Your task to perform on an android device: Open Amazon Image 0: 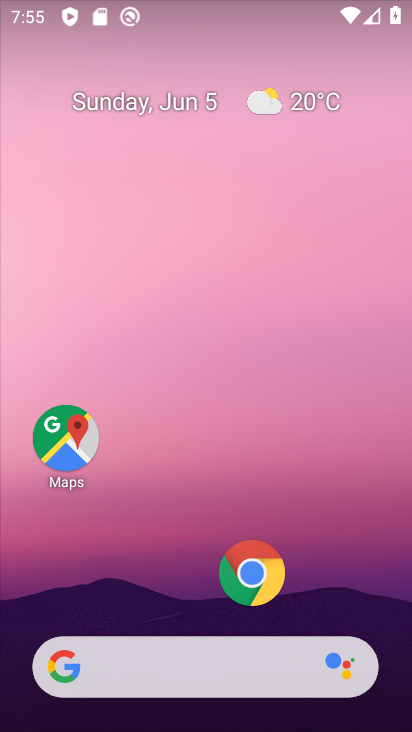
Step 0: click (263, 582)
Your task to perform on an android device: Open Amazon Image 1: 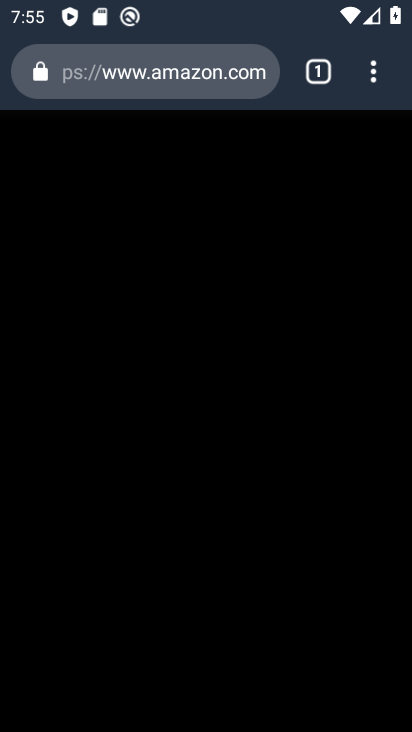
Step 1: task complete